Your task to perform on an android device: toggle pop-ups in chrome Image 0: 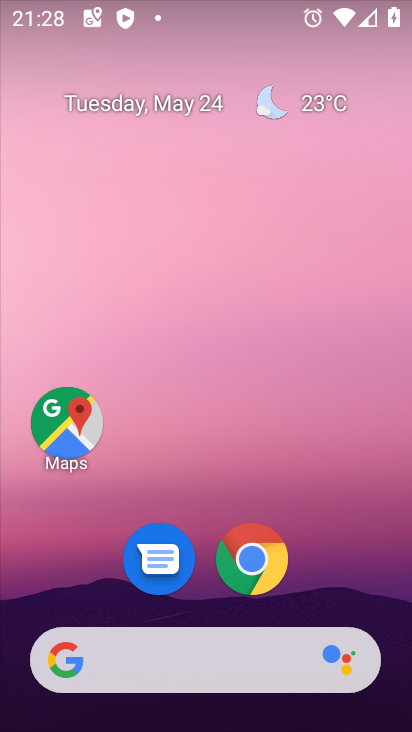
Step 0: drag from (326, 557) to (248, 153)
Your task to perform on an android device: toggle pop-ups in chrome Image 1: 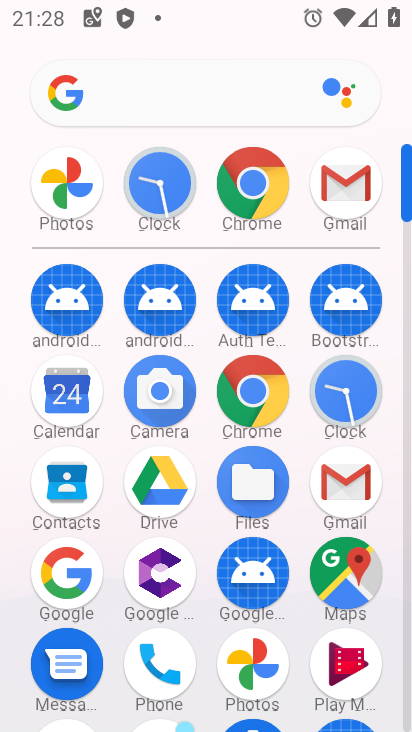
Step 1: click (252, 381)
Your task to perform on an android device: toggle pop-ups in chrome Image 2: 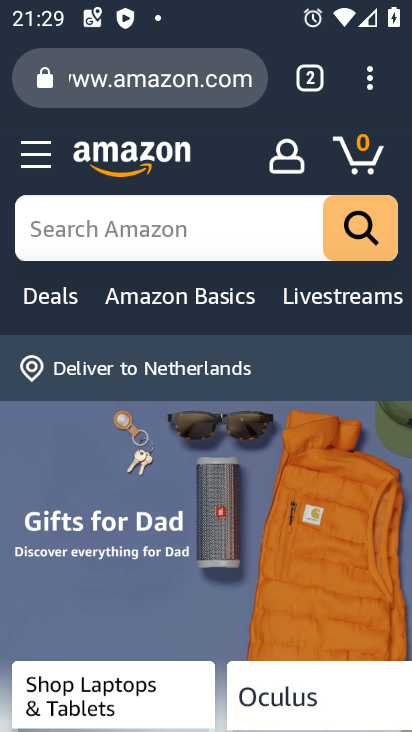
Step 2: drag from (373, 77) to (219, 605)
Your task to perform on an android device: toggle pop-ups in chrome Image 3: 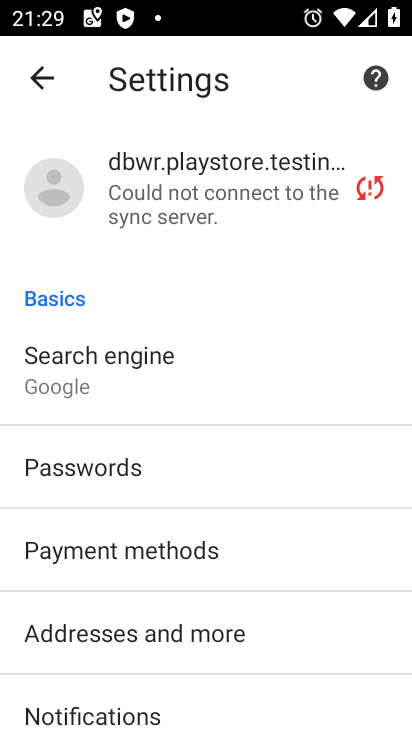
Step 3: drag from (259, 594) to (294, 80)
Your task to perform on an android device: toggle pop-ups in chrome Image 4: 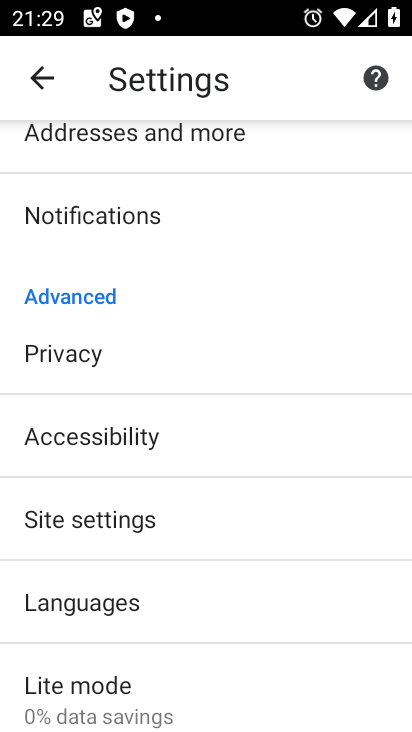
Step 4: click (124, 515)
Your task to perform on an android device: toggle pop-ups in chrome Image 5: 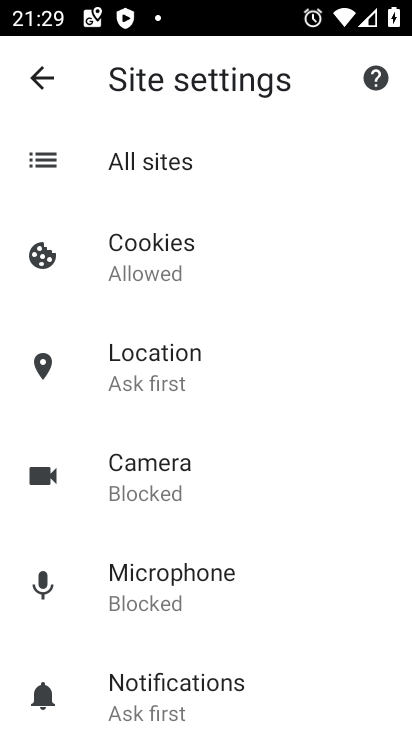
Step 5: drag from (238, 562) to (285, 199)
Your task to perform on an android device: toggle pop-ups in chrome Image 6: 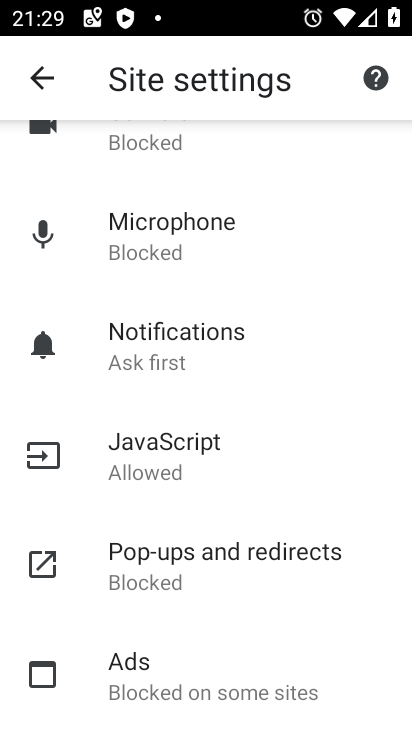
Step 6: drag from (248, 535) to (295, 329)
Your task to perform on an android device: toggle pop-ups in chrome Image 7: 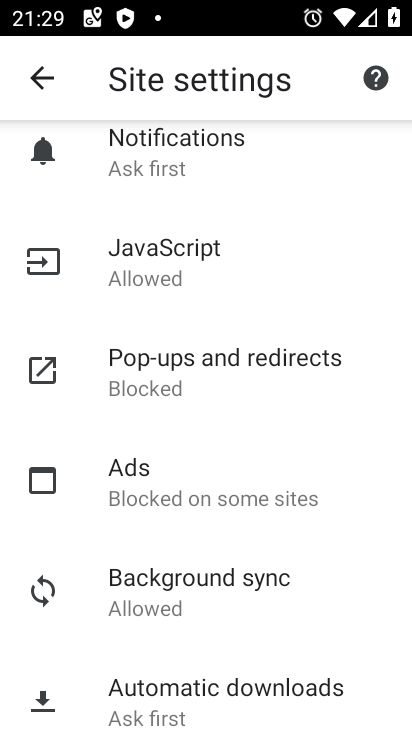
Step 7: click (190, 356)
Your task to perform on an android device: toggle pop-ups in chrome Image 8: 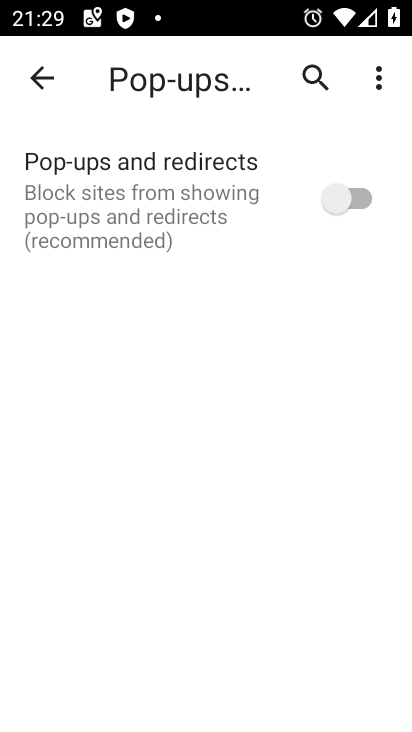
Step 8: click (358, 189)
Your task to perform on an android device: toggle pop-ups in chrome Image 9: 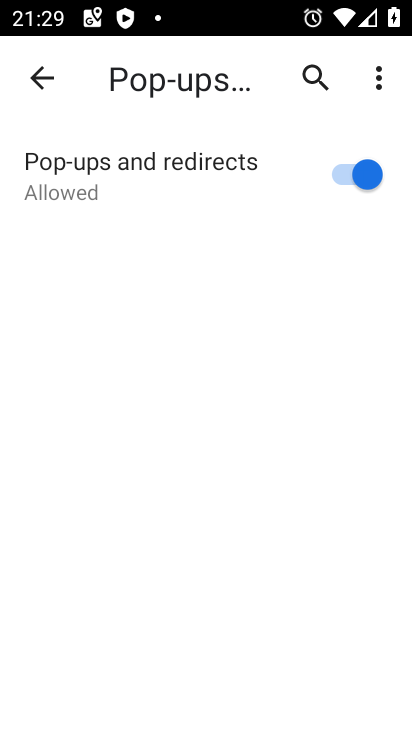
Step 9: task complete